Your task to perform on an android device: Go to settings Image 0: 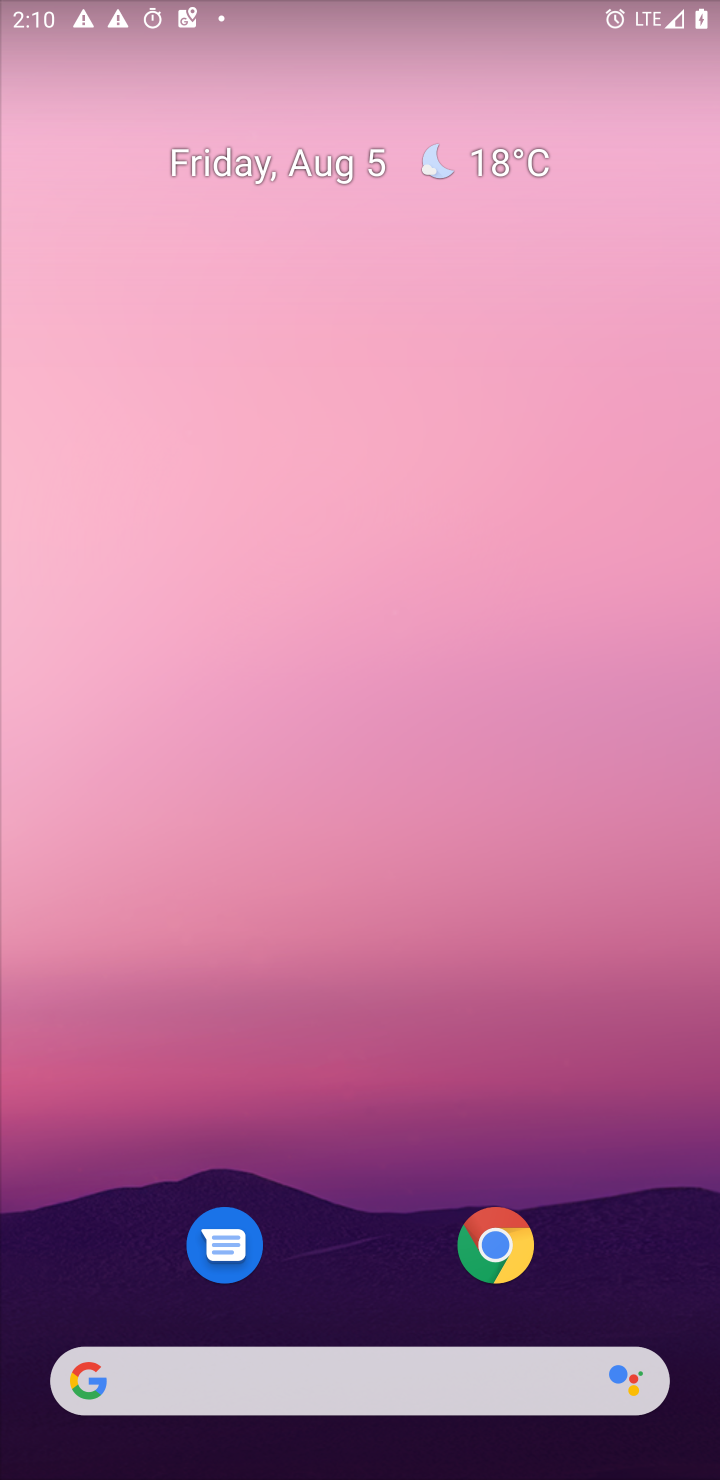
Step 0: press home button
Your task to perform on an android device: Go to settings Image 1: 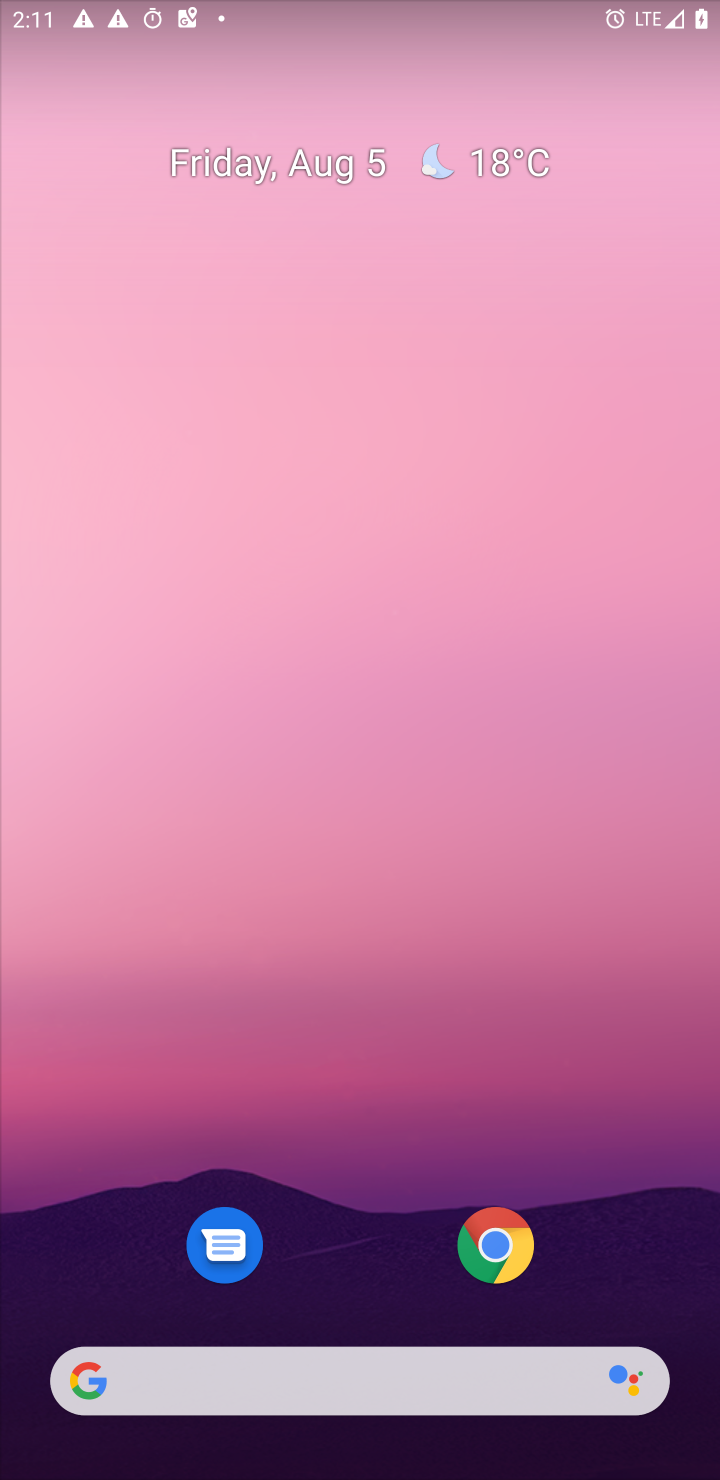
Step 1: drag from (322, 1296) to (509, 347)
Your task to perform on an android device: Go to settings Image 2: 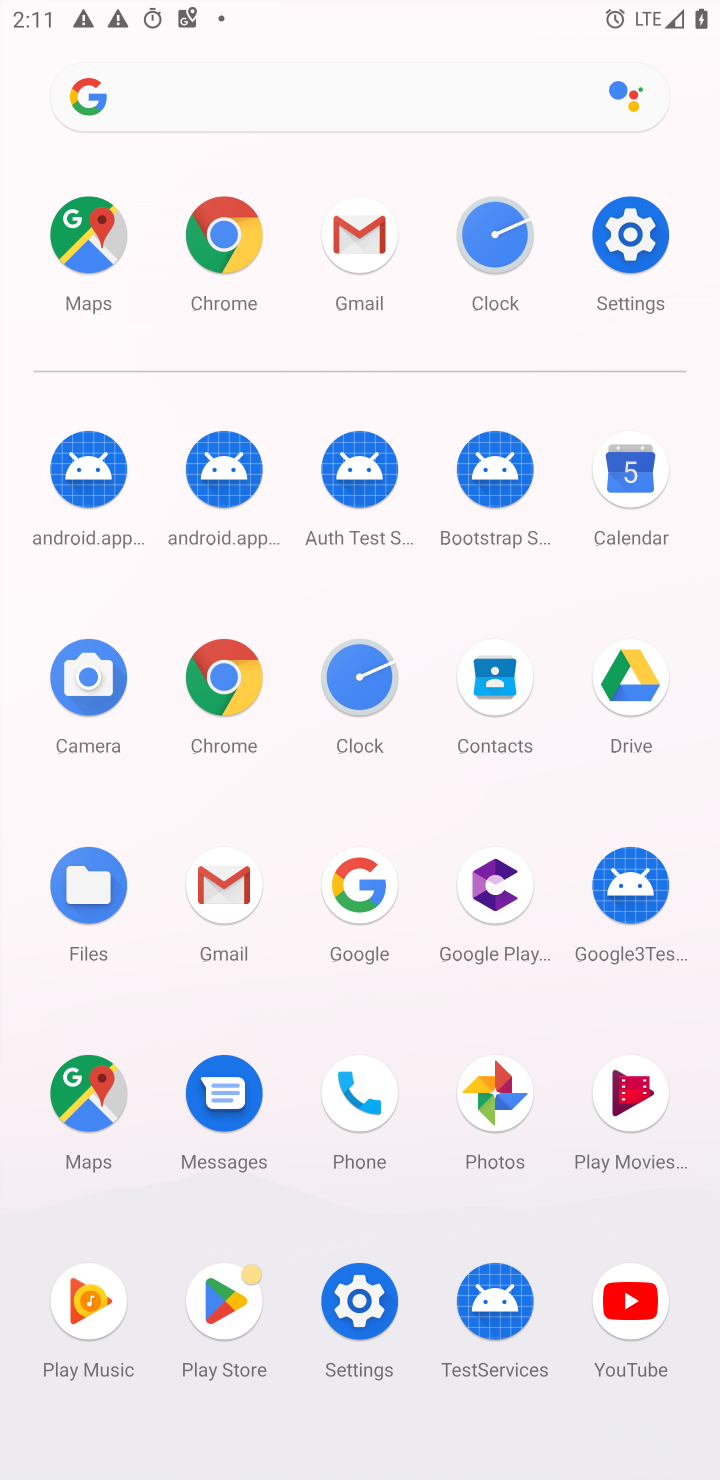
Step 2: click (625, 255)
Your task to perform on an android device: Go to settings Image 3: 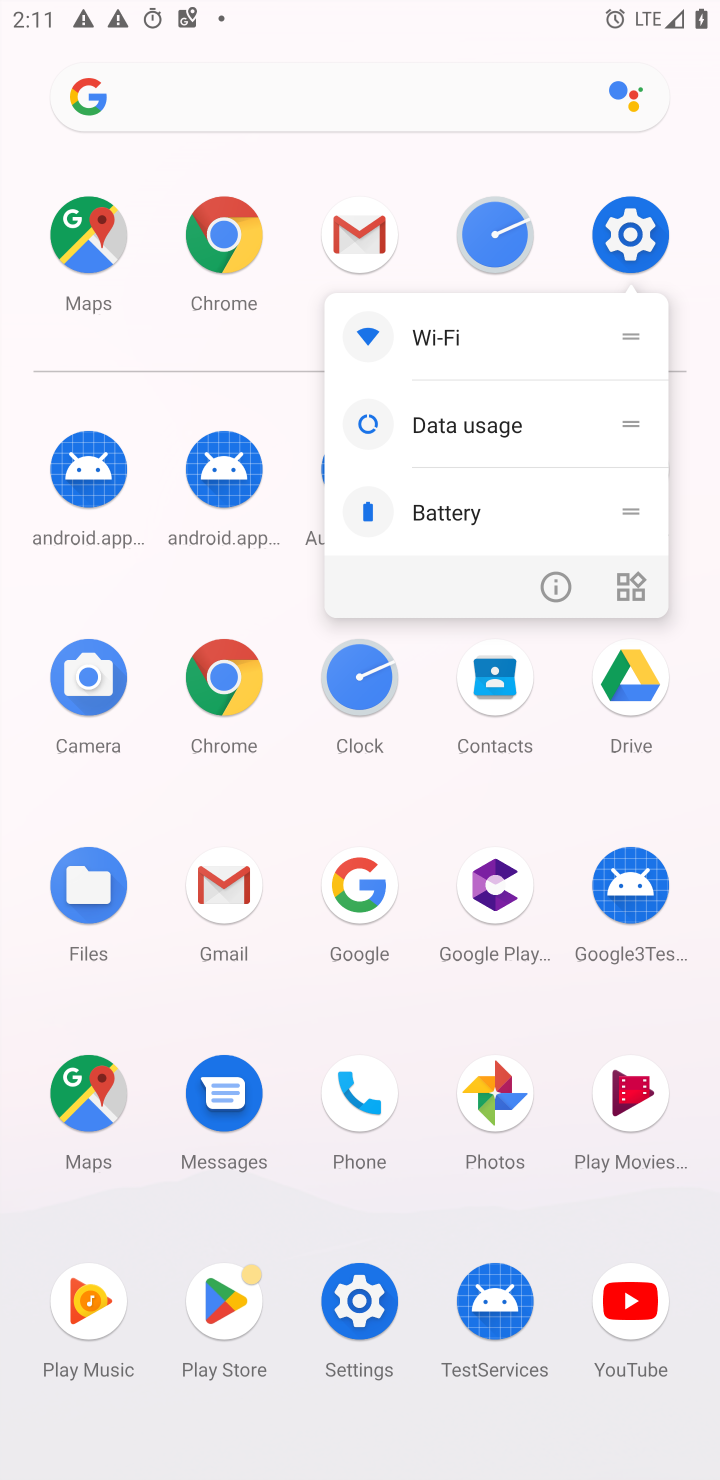
Step 3: click (625, 255)
Your task to perform on an android device: Go to settings Image 4: 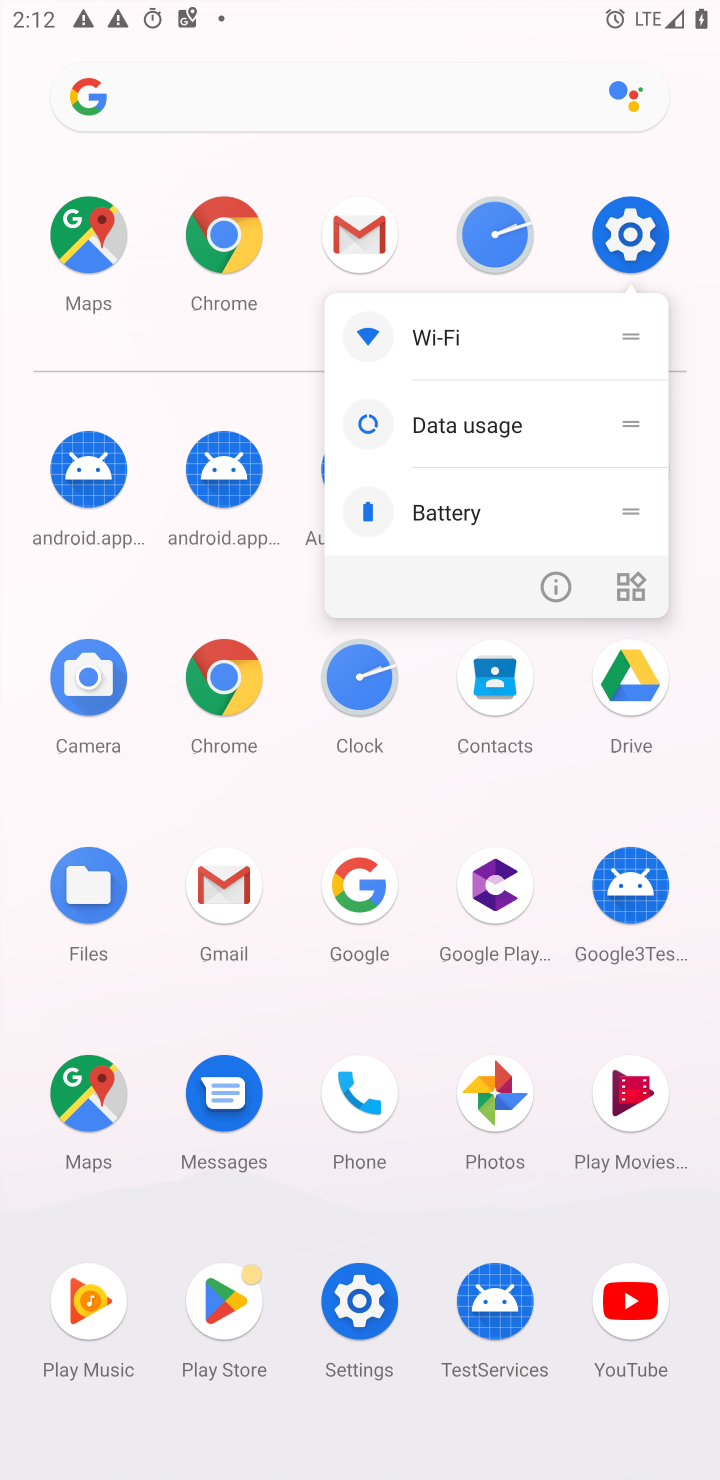
Step 4: click (642, 229)
Your task to perform on an android device: Go to settings Image 5: 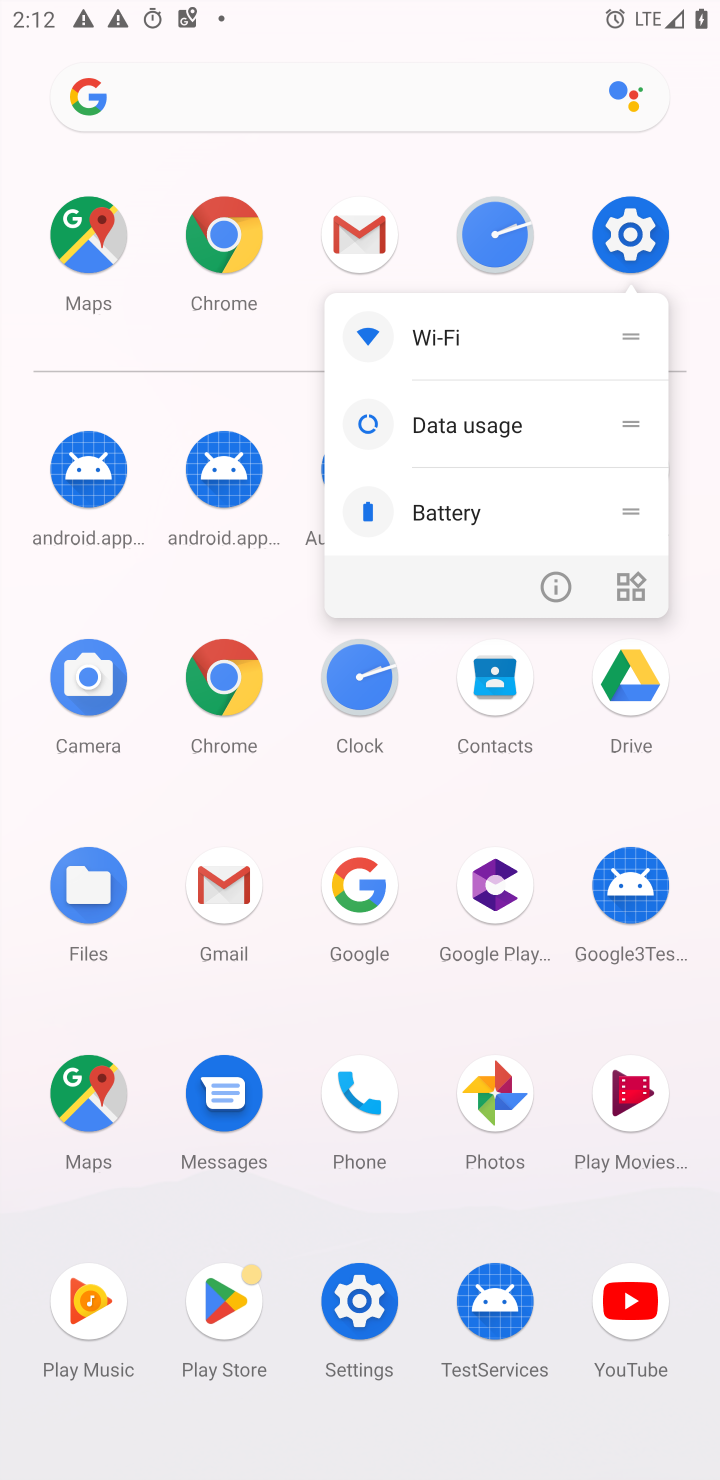
Step 5: click (642, 229)
Your task to perform on an android device: Go to settings Image 6: 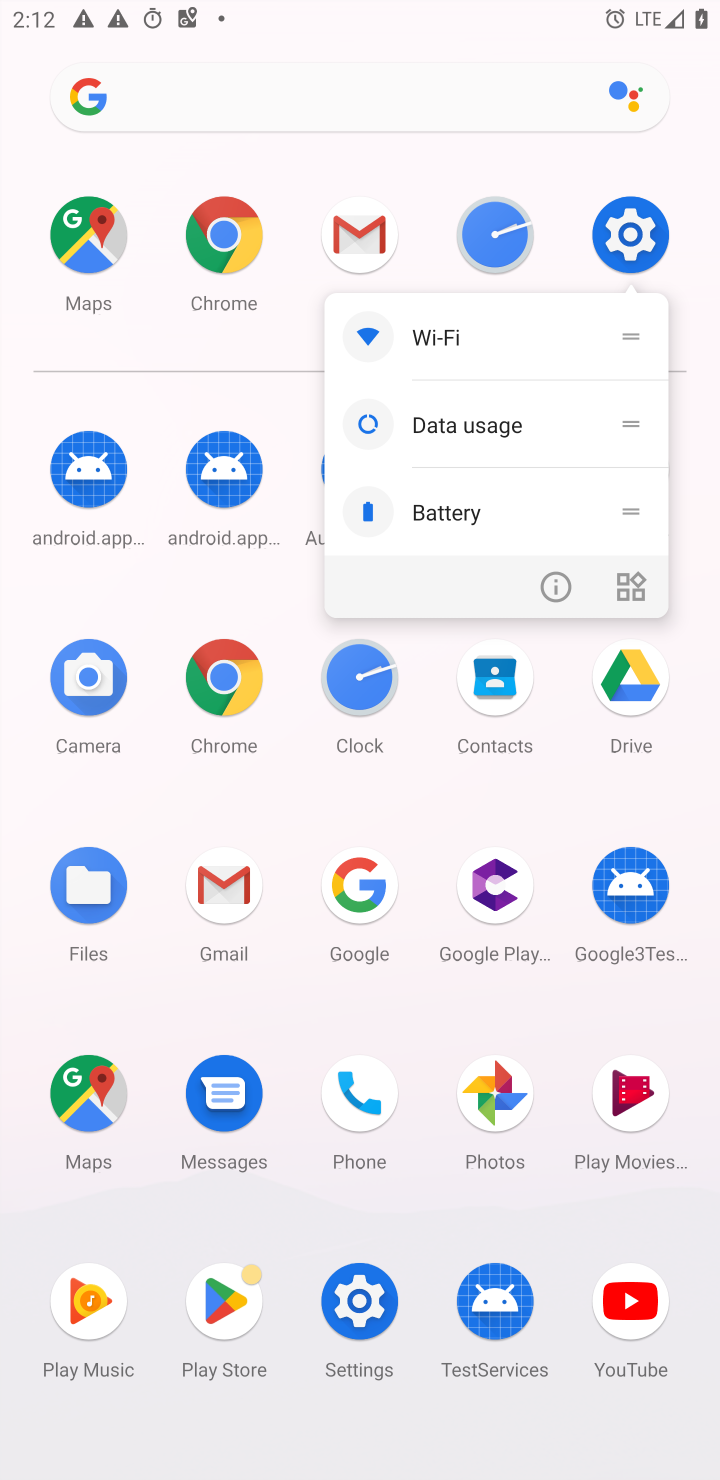
Step 6: click (635, 226)
Your task to perform on an android device: Go to settings Image 7: 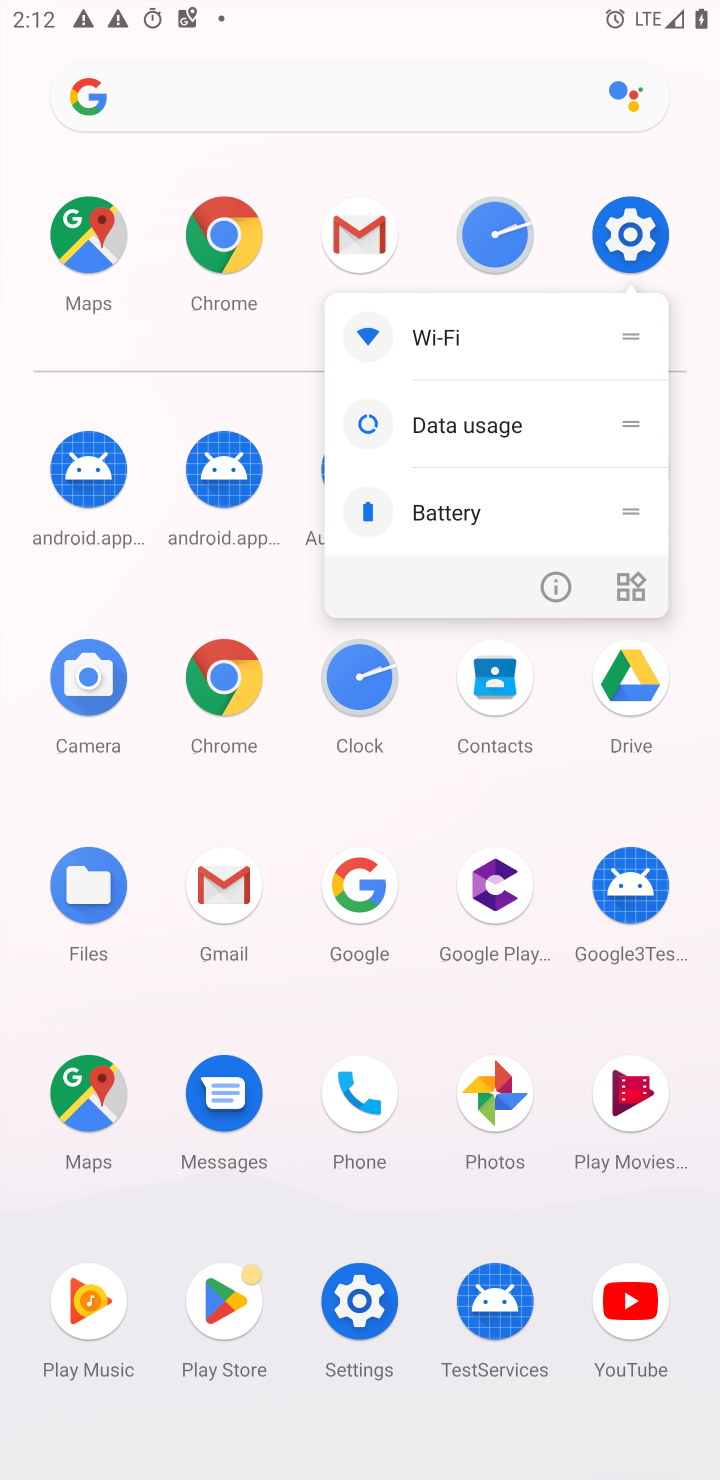
Step 7: click (626, 248)
Your task to perform on an android device: Go to settings Image 8: 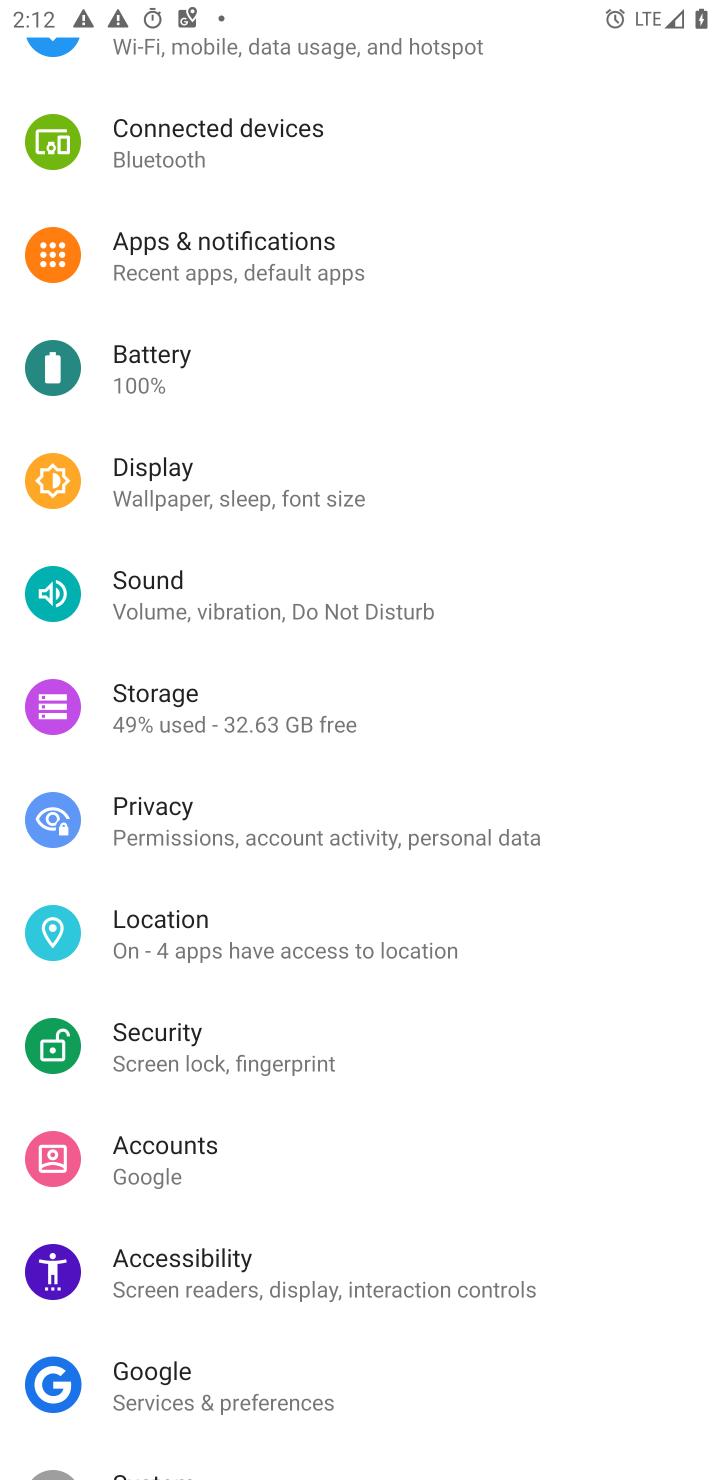
Step 8: task complete